Your task to perform on an android device: Open calendar and show me the fourth week of next month Image 0: 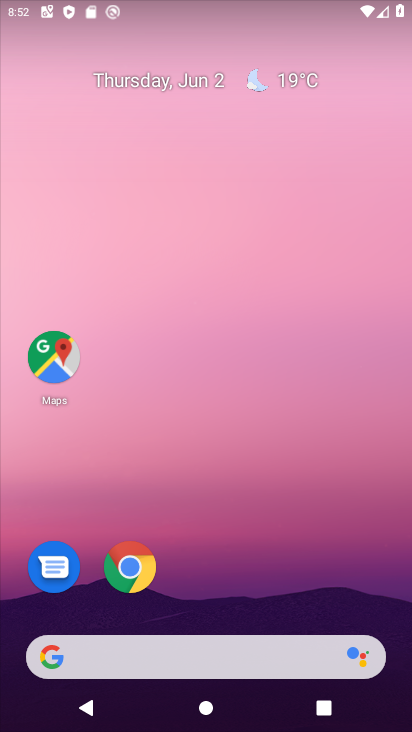
Step 0: drag from (218, 614) to (242, 152)
Your task to perform on an android device: Open calendar and show me the fourth week of next month Image 1: 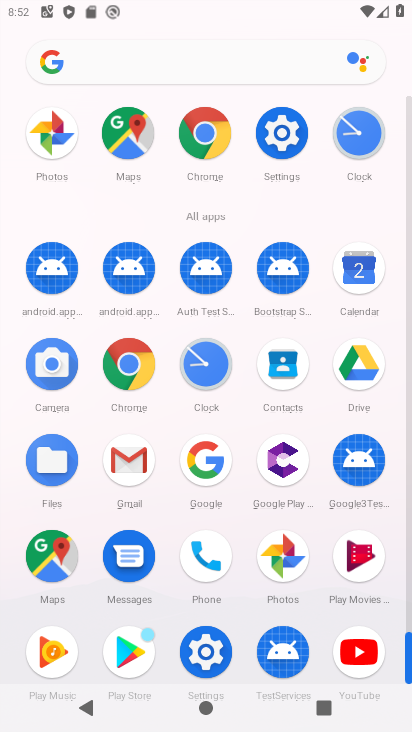
Step 1: click (362, 257)
Your task to perform on an android device: Open calendar and show me the fourth week of next month Image 2: 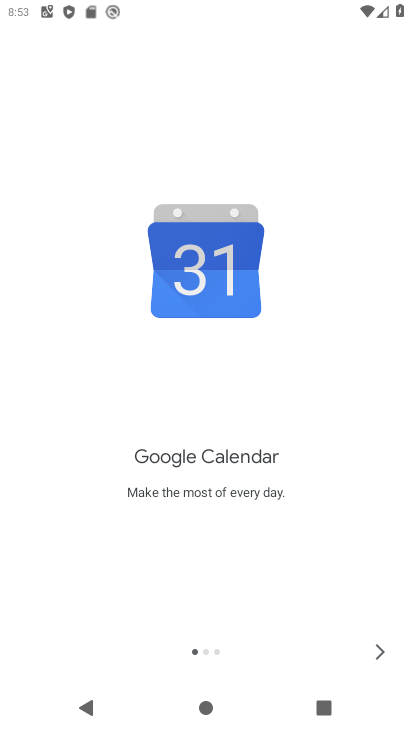
Step 2: click (376, 645)
Your task to perform on an android device: Open calendar and show me the fourth week of next month Image 3: 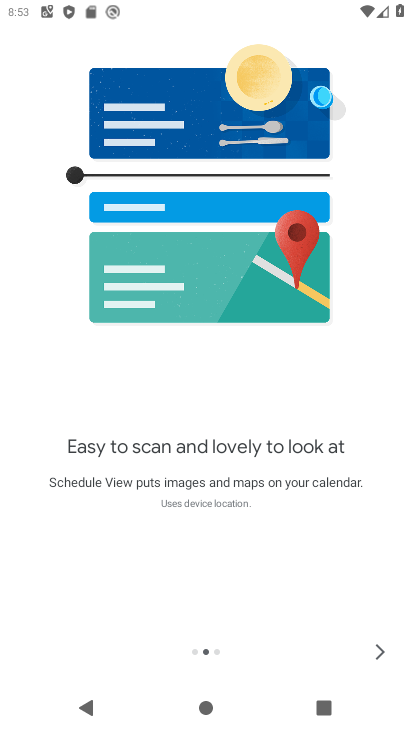
Step 3: click (376, 645)
Your task to perform on an android device: Open calendar and show me the fourth week of next month Image 4: 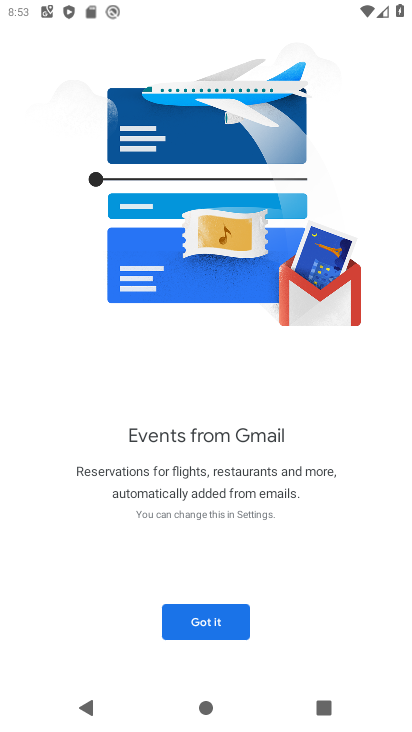
Step 4: click (194, 618)
Your task to perform on an android device: Open calendar and show me the fourth week of next month Image 5: 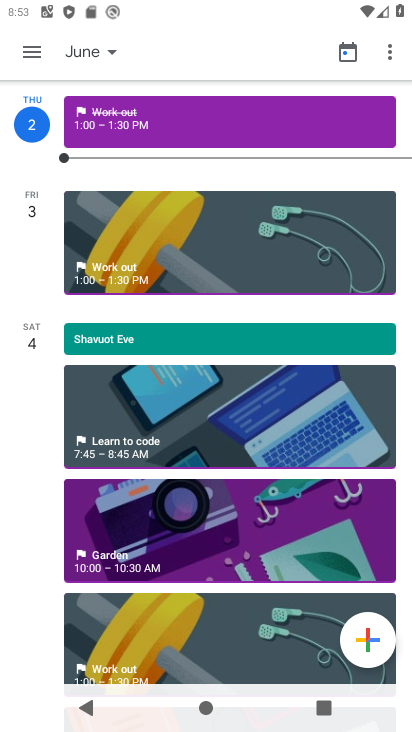
Step 5: click (112, 52)
Your task to perform on an android device: Open calendar and show me the fourth week of next month Image 6: 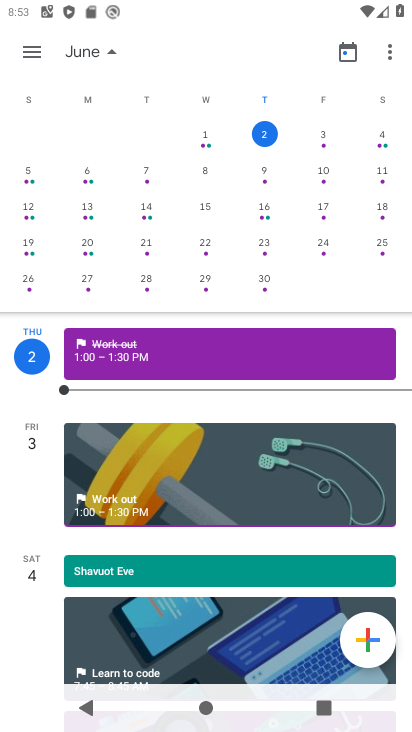
Step 6: drag from (328, 192) to (7, 190)
Your task to perform on an android device: Open calendar and show me the fourth week of next month Image 7: 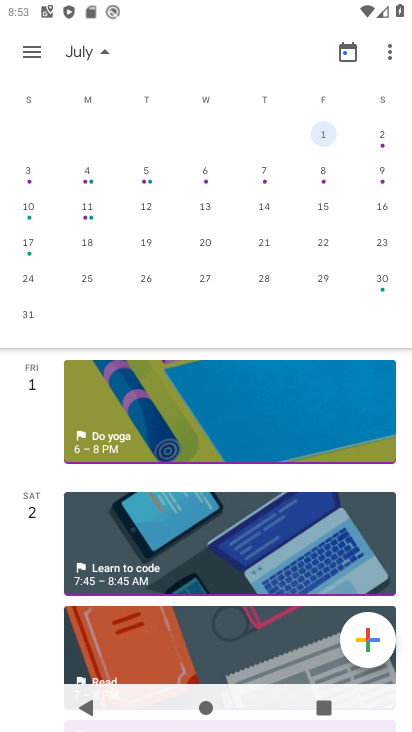
Step 7: click (31, 277)
Your task to perform on an android device: Open calendar and show me the fourth week of next month Image 8: 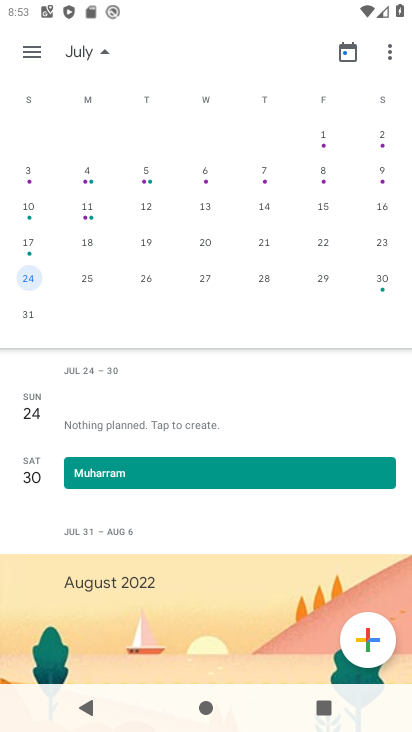
Step 8: click (102, 54)
Your task to perform on an android device: Open calendar and show me the fourth week of next month Image 9: 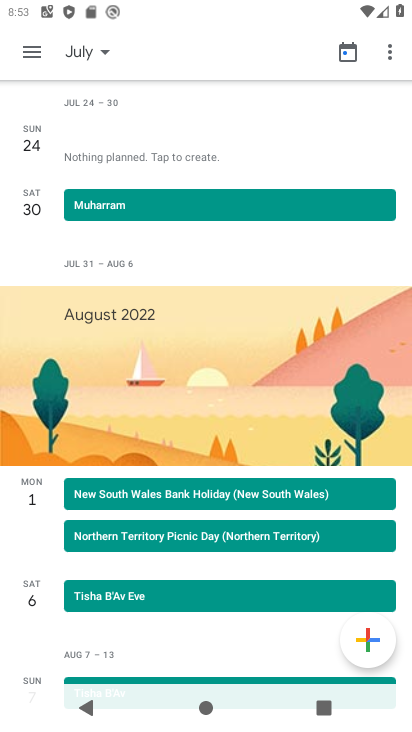
Step 9: task complete